Your task to perform on an android device: turn notification dots on Image 0: 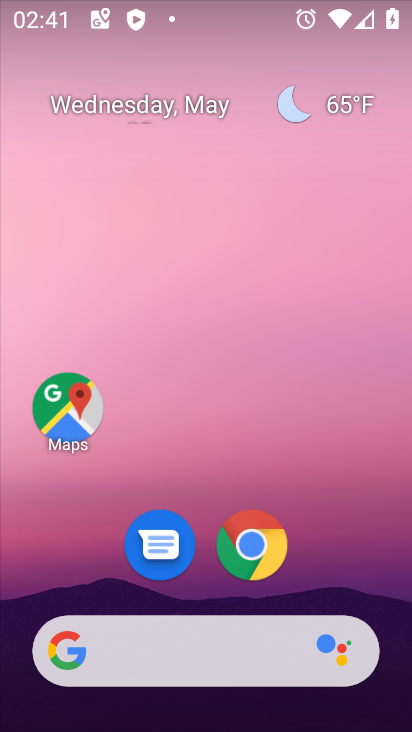
Step 0: drag from (340, 536) to (143, 2)
Your task to perform on an android device: turn notification dots on Image 1: 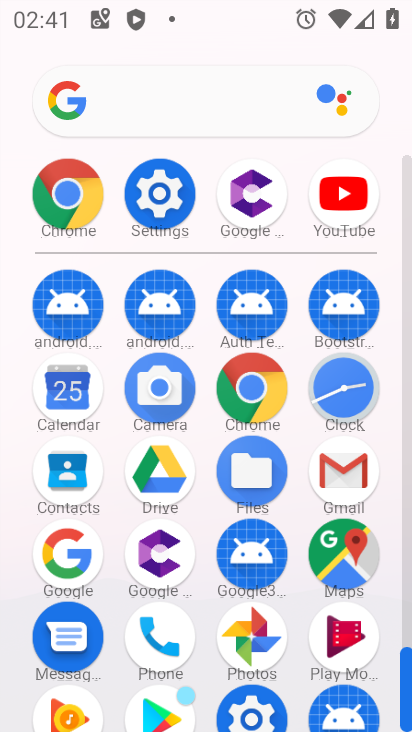
Step 1: click (170, 187)
Your task to perform on an android device: turn notification dots on Image 2: 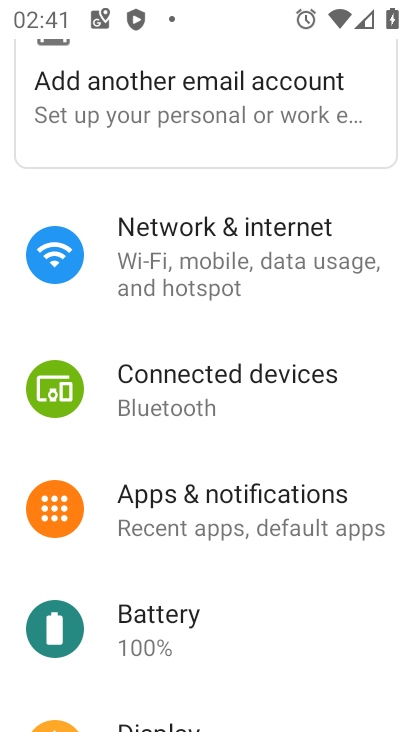
Step 2: click (243, 518)
Your task to perform on an android device: turn notification dots on Image 3: 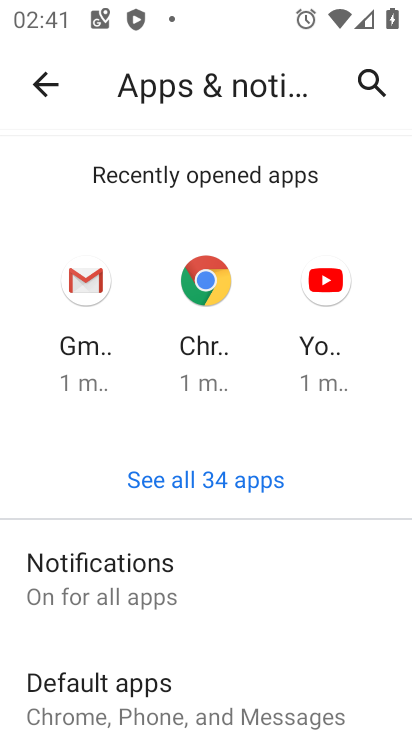
Step 3: click (197, 571)
Your task to perform on an android device: turn notification dots on Image 4: 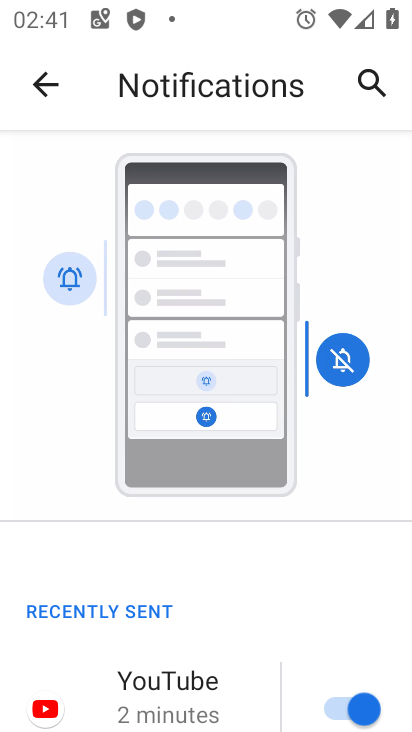
Step 4: drag from (275, 533) to (247, 160)
Your task to perform on an android device: turn notification dots on Image 5: 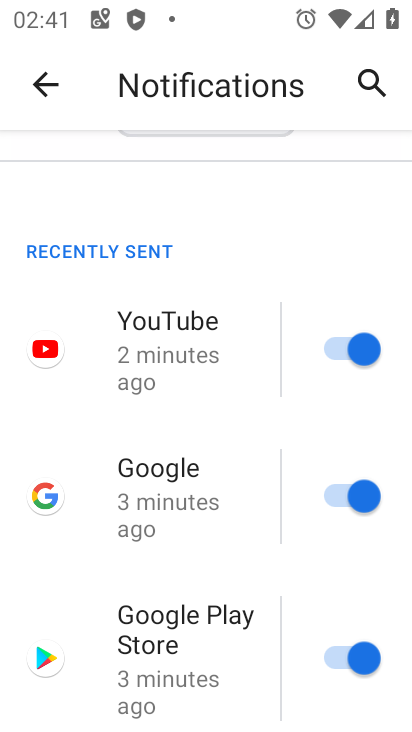
Step 5: drag from (198, 568) to (209, 139)
Your task to perform on an android device: turn notification dots on Image 6: 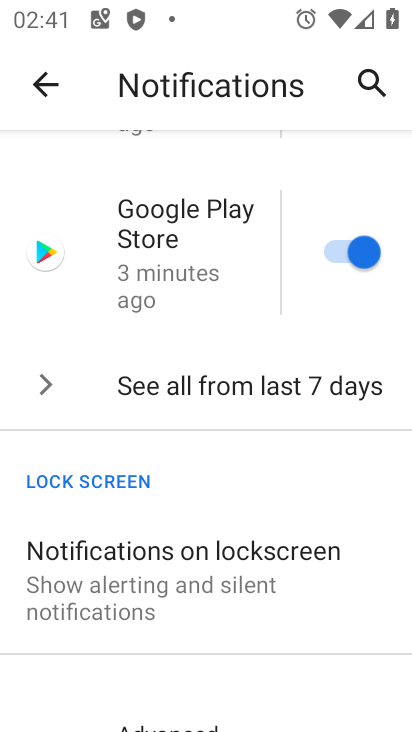
Step 6: drag from (221, 638) to (233, 215)
Your task to perform on an android device: turn notification dots on Image 7: 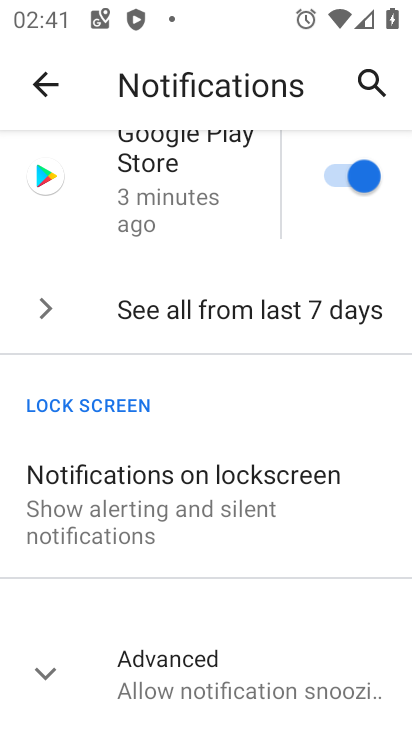
Step 7: click (232, 652)
Your task to perform on an android device: turn notification dots on Image 8: 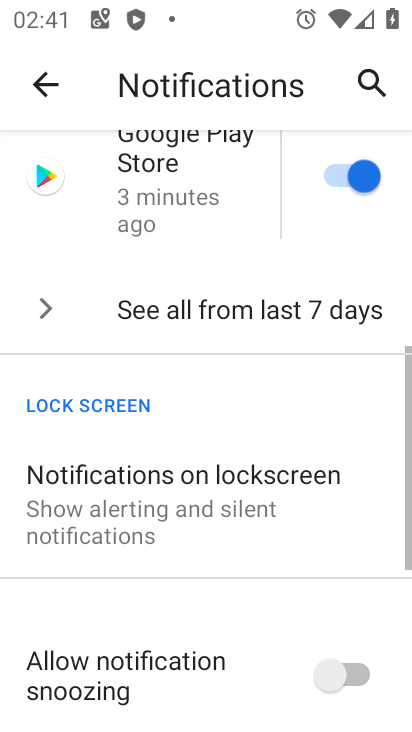
Step 8: task complete